Your task to perform on an android device: open chrome and create a bookmark for the current page Image 0: 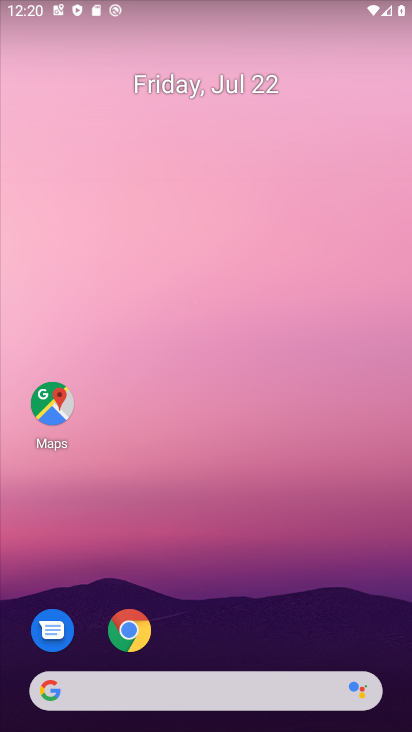
Step 0: drag from (293, 572) to (260, 77)
Your task to perform on an android device: open chrome and create a bookmark for the current page Image 1: 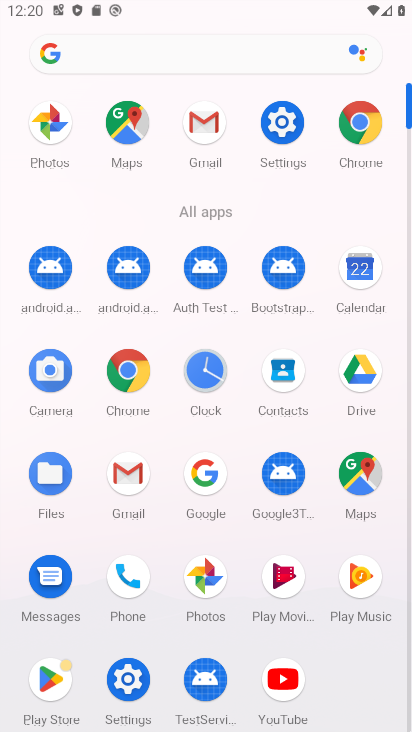
Step 1: click (348, 160)
Your task to perform on an android device: open chrome and create a bookmark for the current page Image 2: 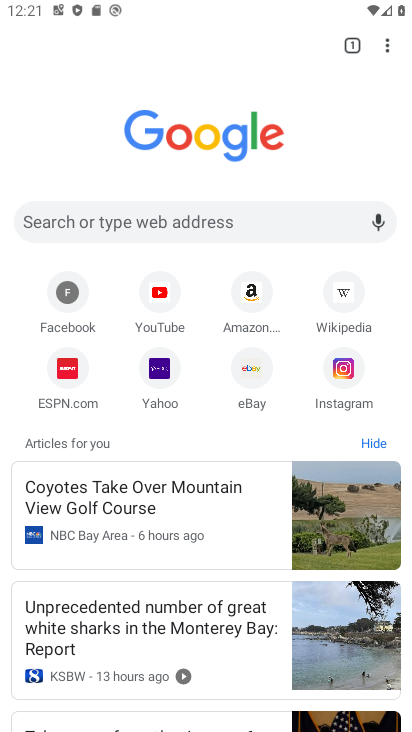
Step 2: drag from (389, 36) to (335, 5)
Your task to perform on an android device: open chrome and create a bookmark for the current page Image 3: 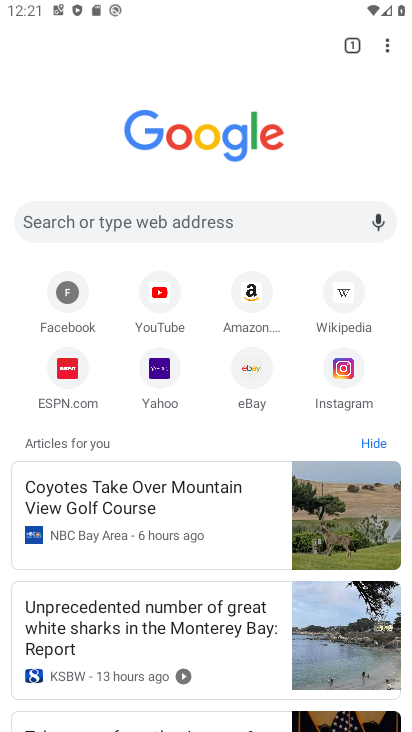
Step 3: click (340, 293)
Your task to perform on an android device: open chrome and create a bookmark for the current page Image 4: 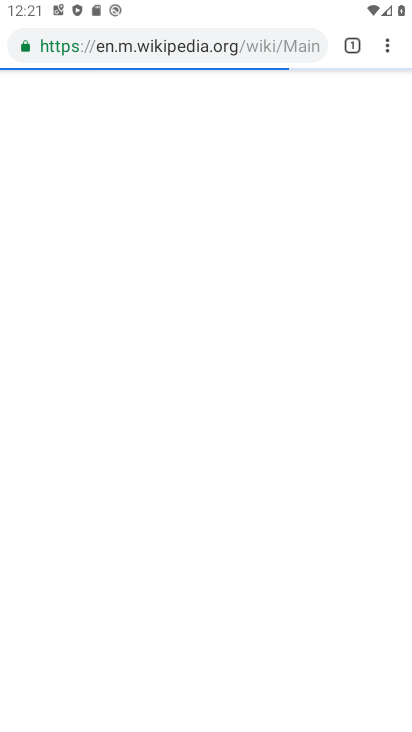
Step 4: task complete